Your task to perform on an android device: Open maps Image 0: 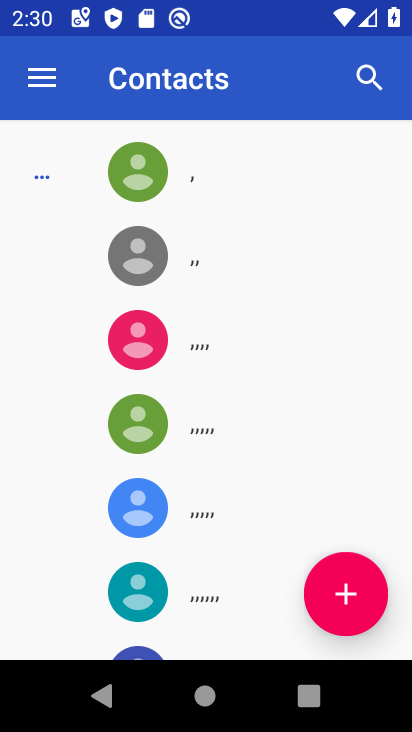
Step 0: press home button
Your task to perform on an android device: Open maps Image 1: 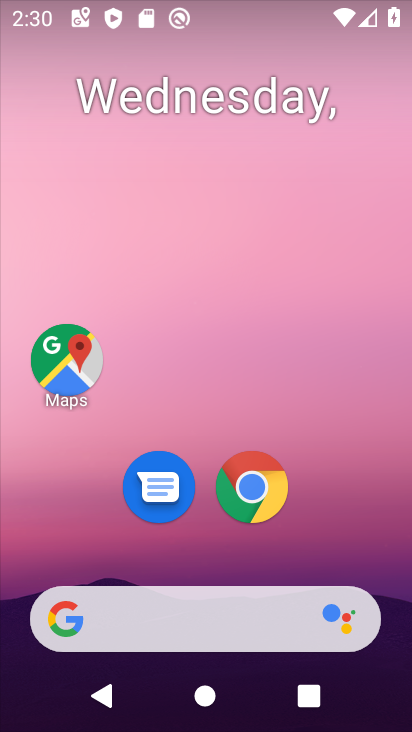
Step 1: click (58, 374)
Your task to perform on an android device: Open maps Image 2: 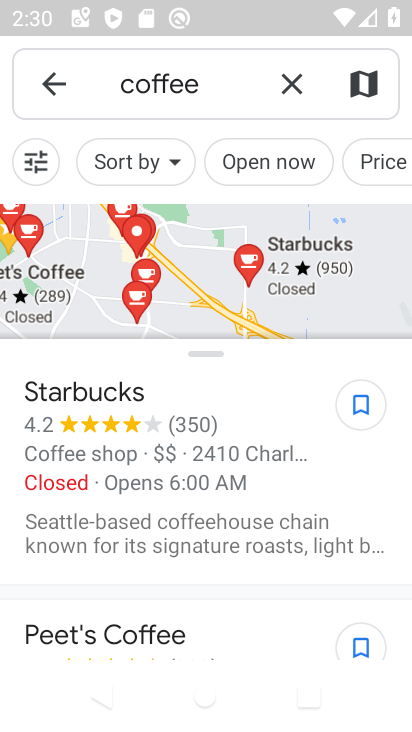
Step 2: task complete